Your task to perform on an android device: turn on bluetooth scan Image 0: 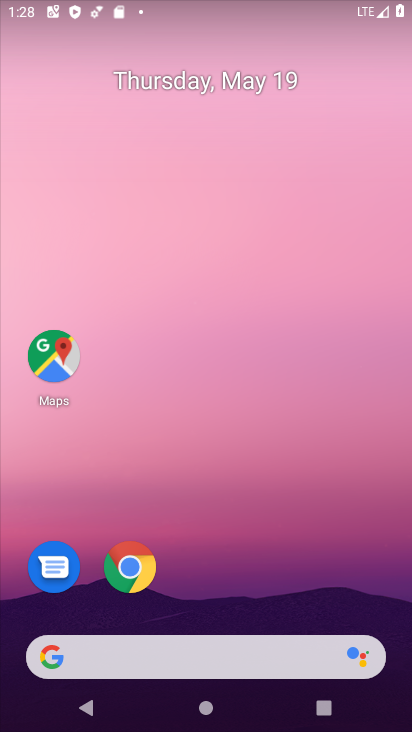
Step 0: drag from (61, 573) to (201, 264)
Your task to perform on an android device: turn on bluetooth scan Image 1: 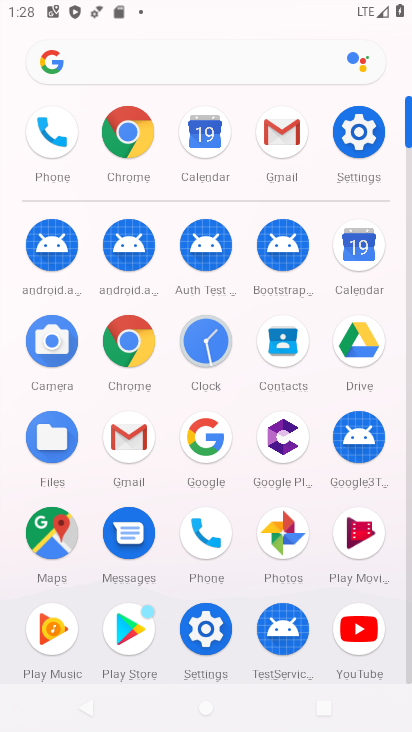
Step 1: click (365, 129)
Your task to perform on an android device: turn on bluetooth scan Image 2: 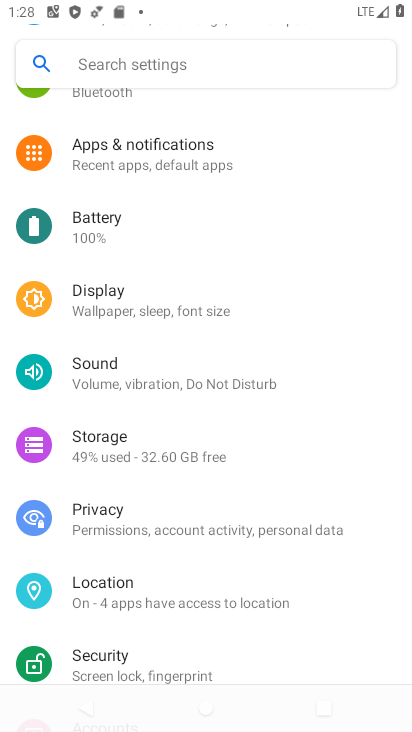
Step 2: drag from (167, 151) to (162, 516)
Your task to perform on an android device: turn on bluetooth scan Image 3: 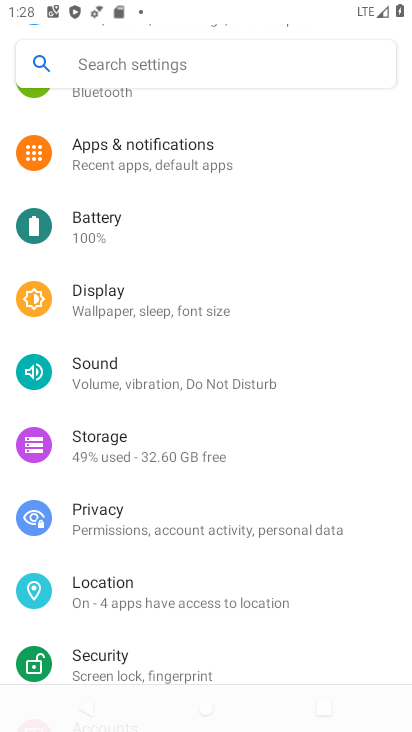
Step 3: click (196, 601)
Your task to perform on an android device: turn on bluetooth scan Image 4: 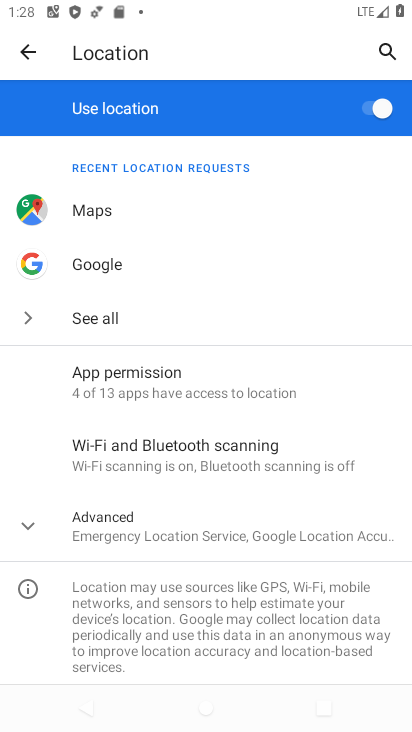
Step 4: click (198, 459)
Your task to perform on an android device: turn on bluetooth scan Image 5: 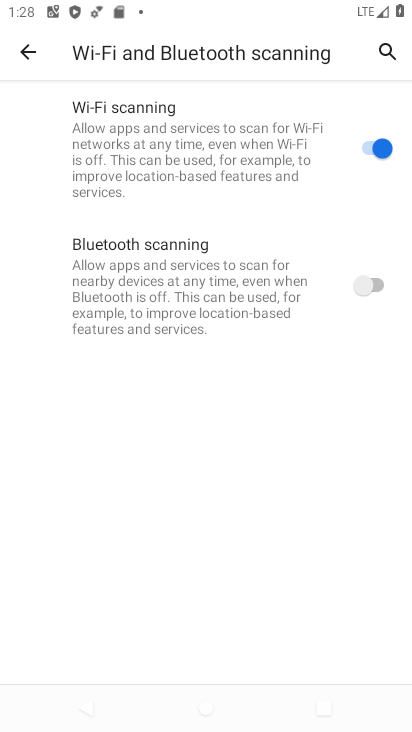
Step 5: click (366, 284)
Your task to perform on an android device: turn on bluetooth scan Image 6: 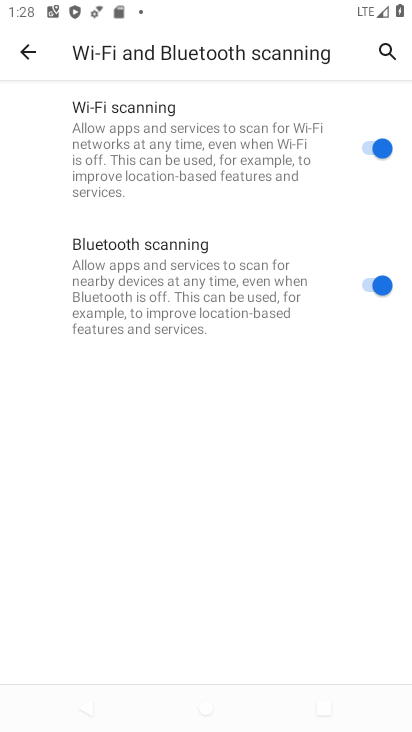
Step 6: task complete